Your task to perform on an android device: turn on translation in the chrome app Image 0: 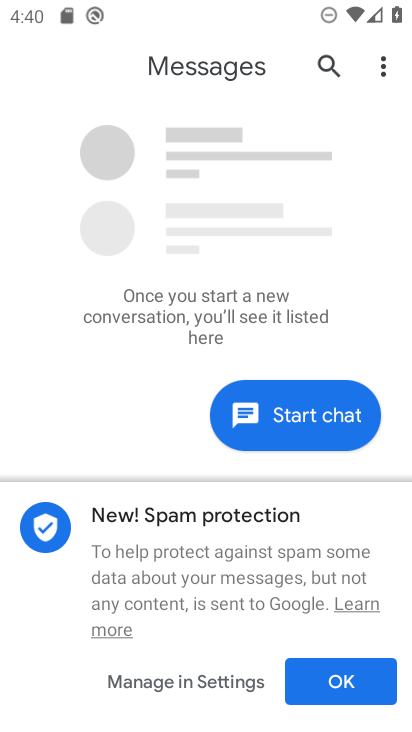
Step 0: press home button
Your task to perform on an android device: turn on translation in the chrome app Image 1: 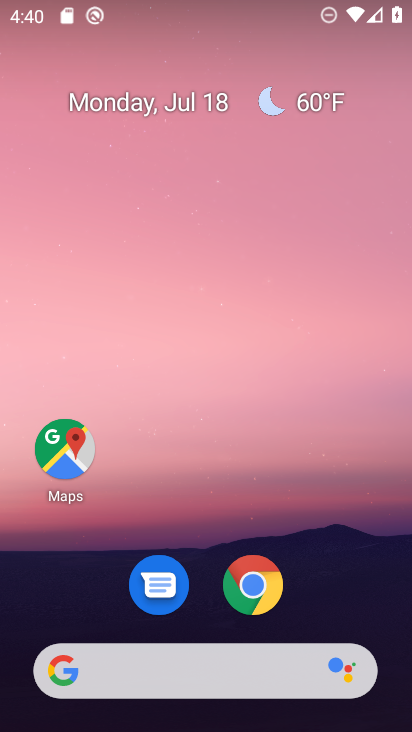
Step 1: click (265, 570)
Your task to perform on an android device: turn on translation in the chrome app Image 2: 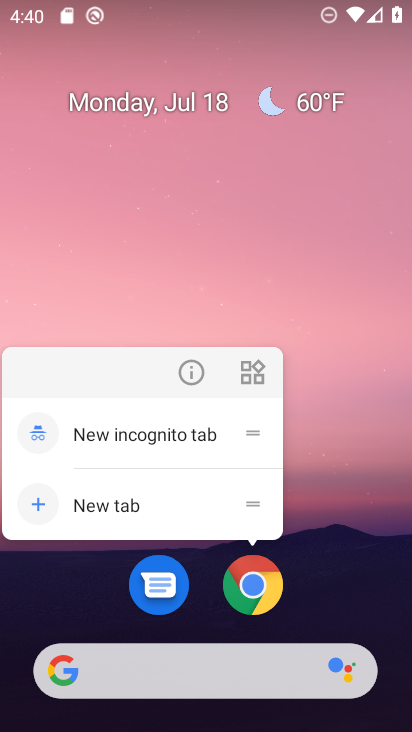
Step 2: click (265, 566)
Your task to perform on an android device: turn on translation in the chrome app Image 3: 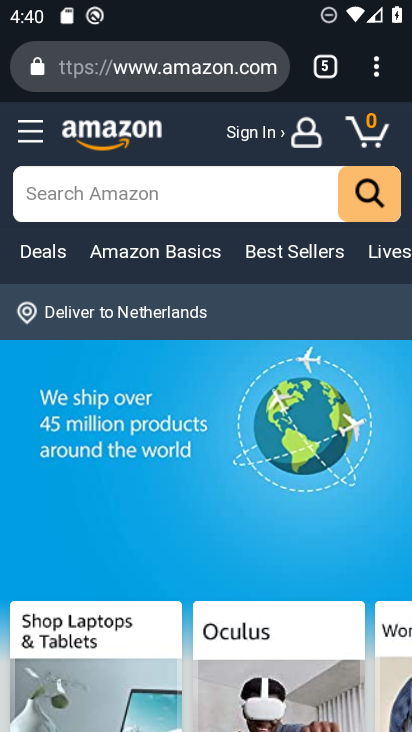
Step 3: click (375, 79)
Your task to perform on an android device: turn on translation in the chrome app Image 4: 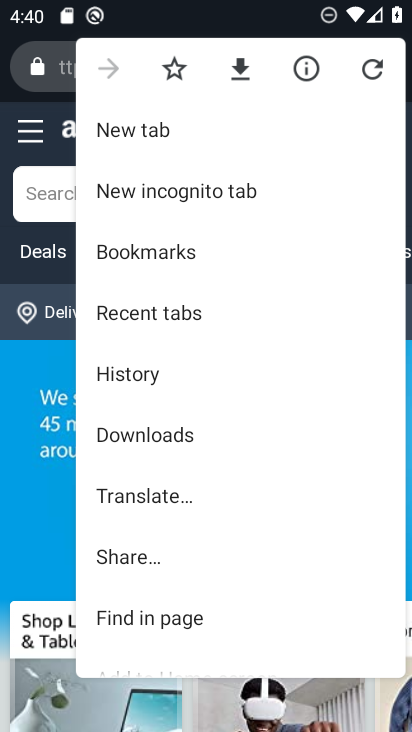
Step 4: drag from (246, 547) to (272, 316)
Your task to perform on an android device: turn on translation in the chrome app Image 5: 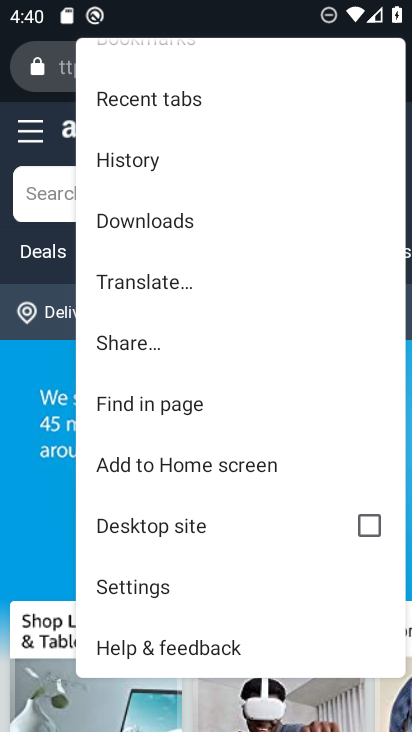
Step 5: click (156, 585)
Your task to perform on an android device: turn on translation in the chrome app Image 6: 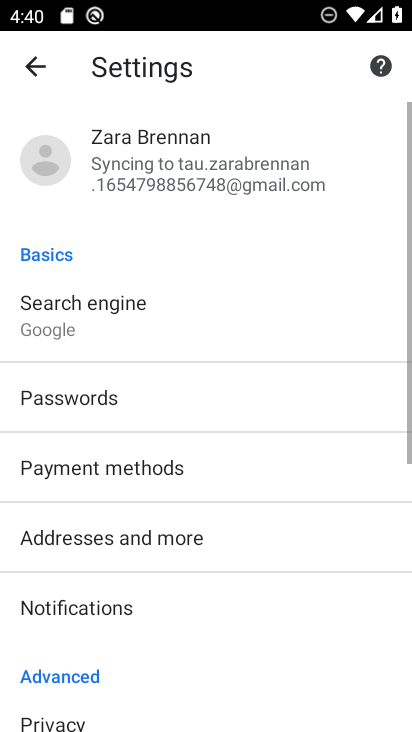
Step 6: drag from (264, 540) to (341, 136)
Your task to perform on an android device: turn on translation in the chrome app Image 7: 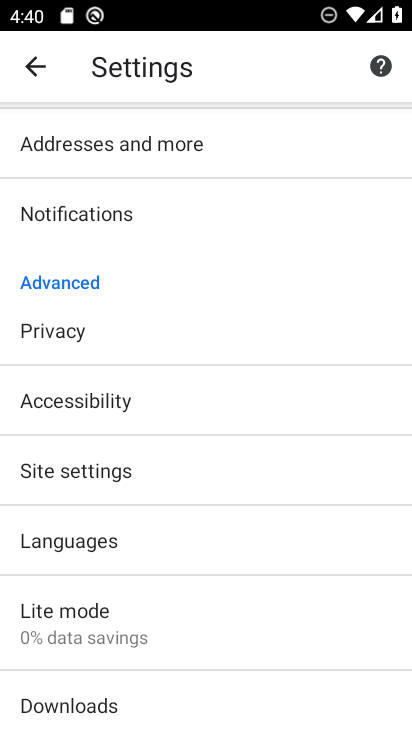
Step 7: click (179, 542)
Your task to perform on an android device: turn on translation in the chrome app Image 8: 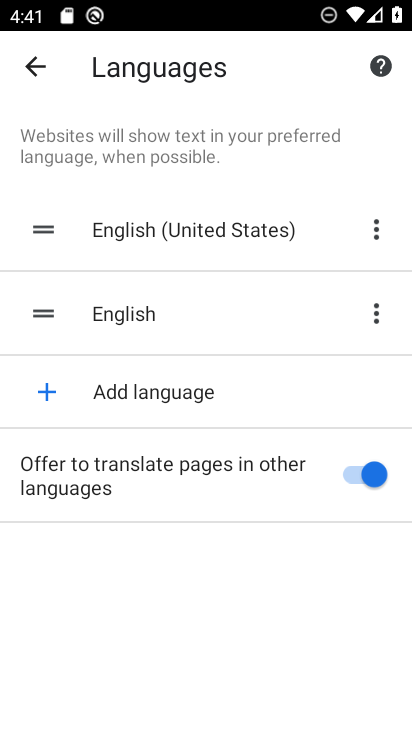
Step 8: task complete